Your task to perform on an android device: uninstall "Truecaller" Image 0: 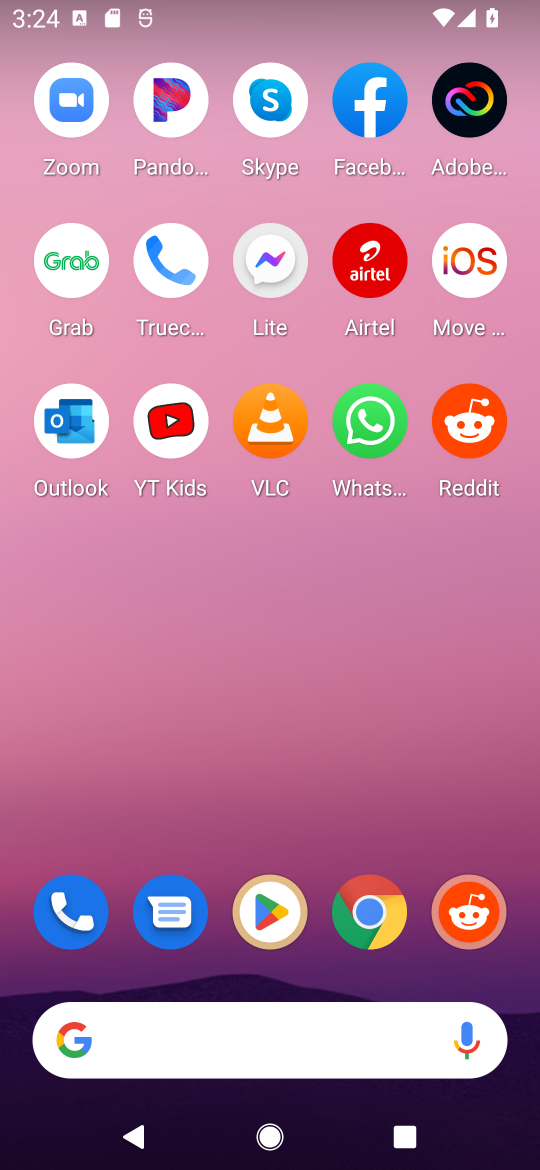
Step 0: drag from (207, 1059) to (248, 129)
Your task to perform on an android device: uninstall "Truecaller" Image 1: 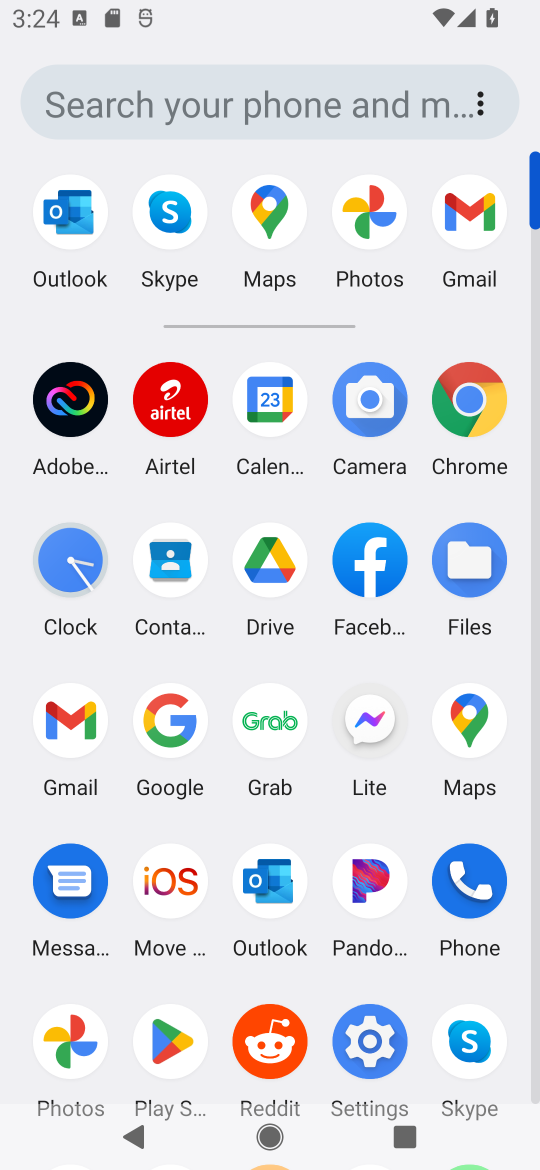
Step 1: click (167, 1044)
Your task to perform on an android device: uninstall "Truecaller" Image 2: 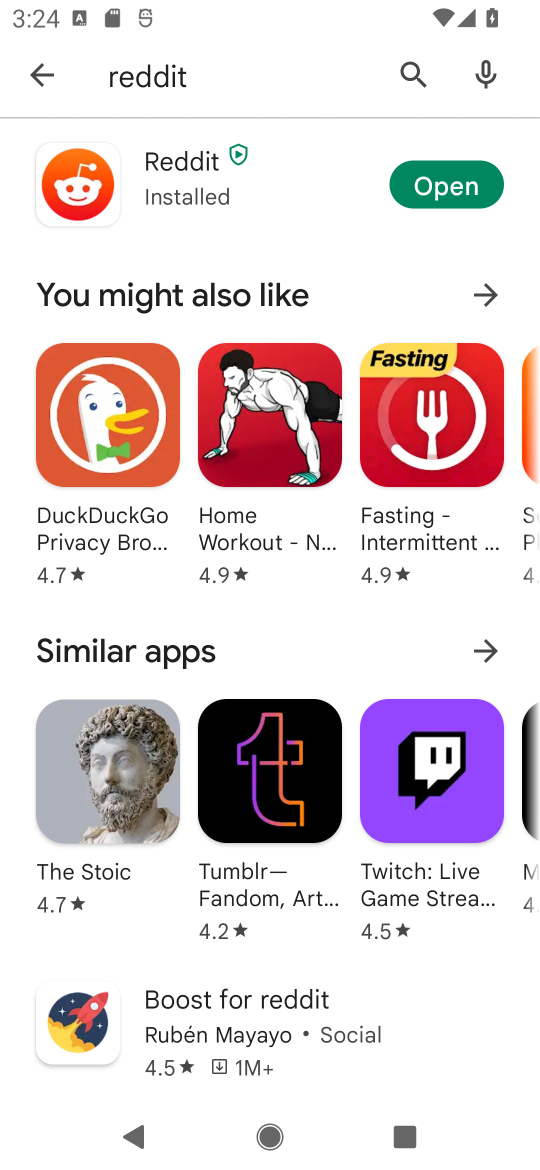
Step 2: click (318, 103)
Your task to perform on an android device: uninstall "Truecaller" Image 3: 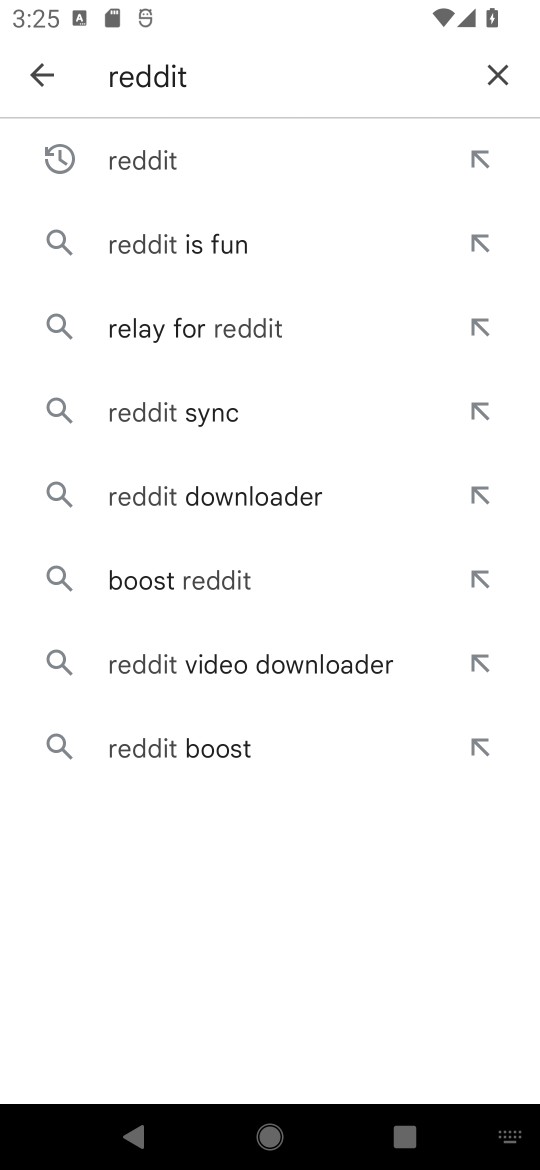
Step 3: press back button
Your task to perform on an android device: uninstall "Truecaller" Image 4: 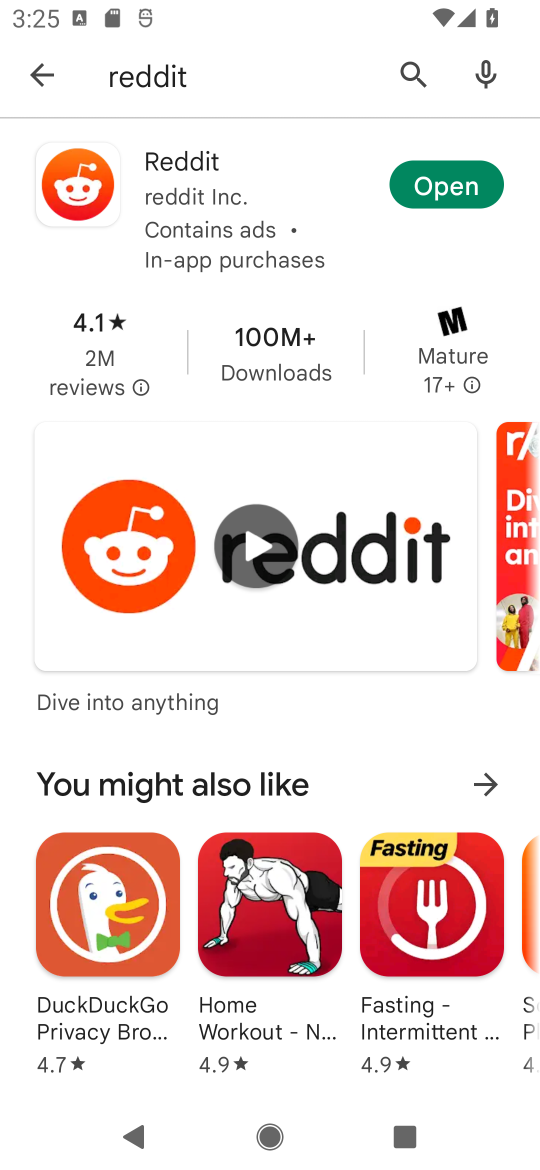
Step 4: press back button
Your task to perform on an android device: uninstall "Truecaller" Image 5: 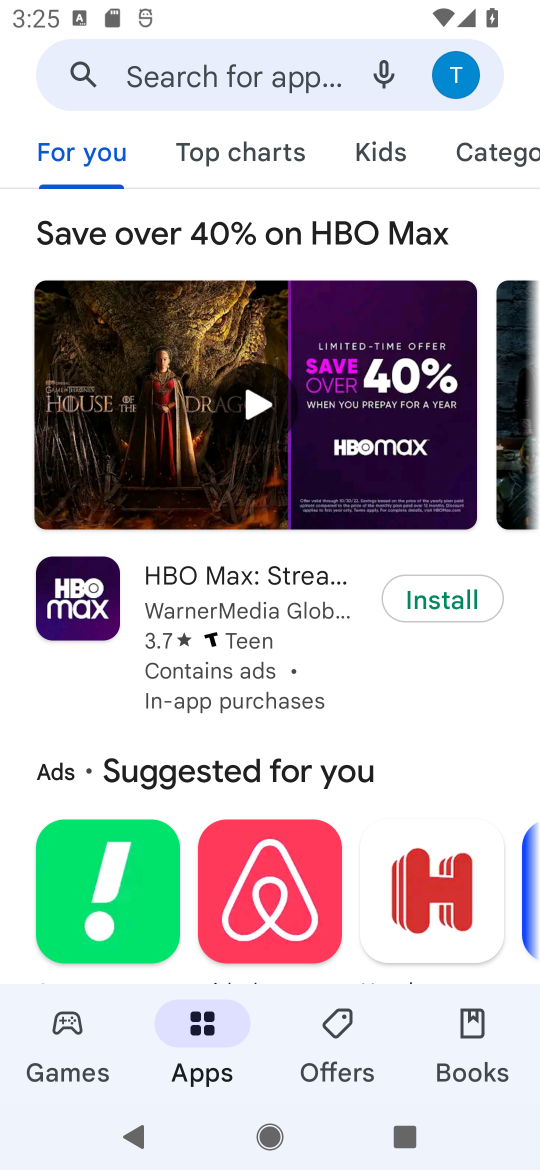
Step 5: click (220, 65)
Your task to perform on an android device: uninstall "Truecaller" Image 6: 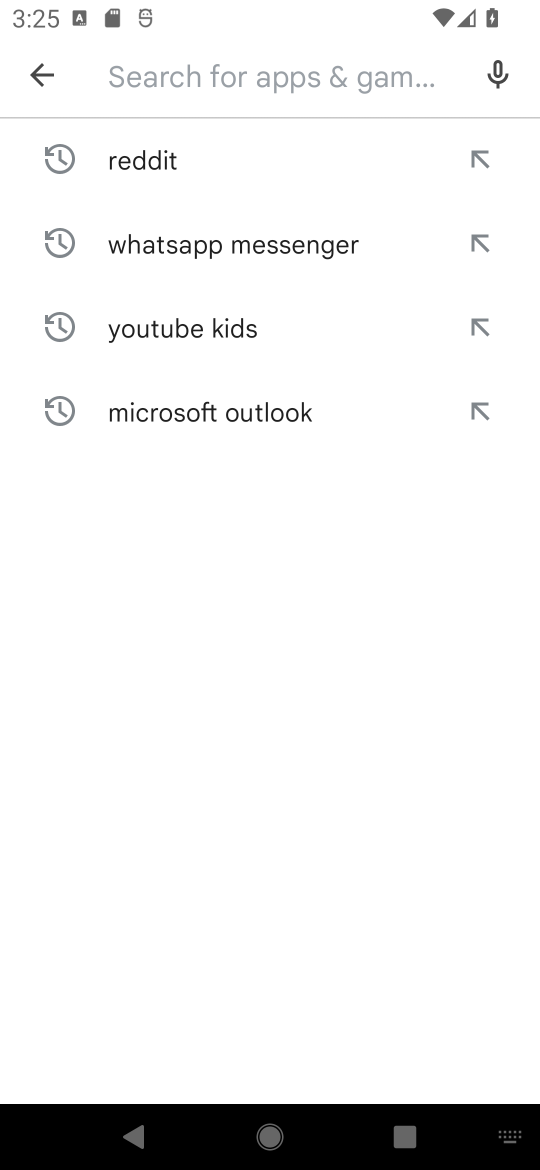
Step 6: type "Truecaller"
Your task to perform on an android device: uninstall "Truecaller" Image 7: 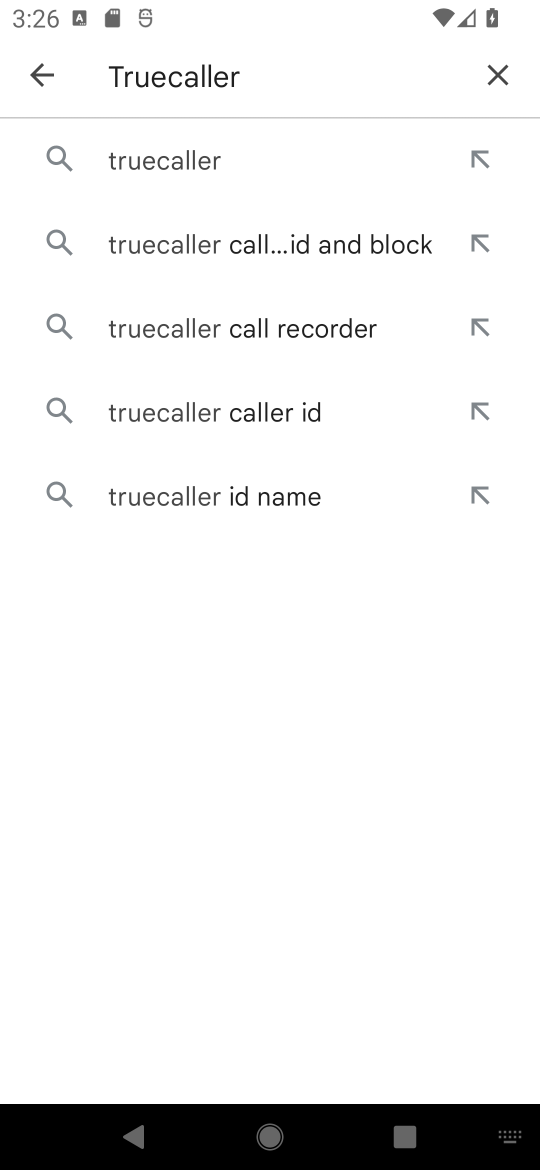
Step 7: click (191, 160)
Your task to perform on an android device: uninstall "Truecaller" Image 8: 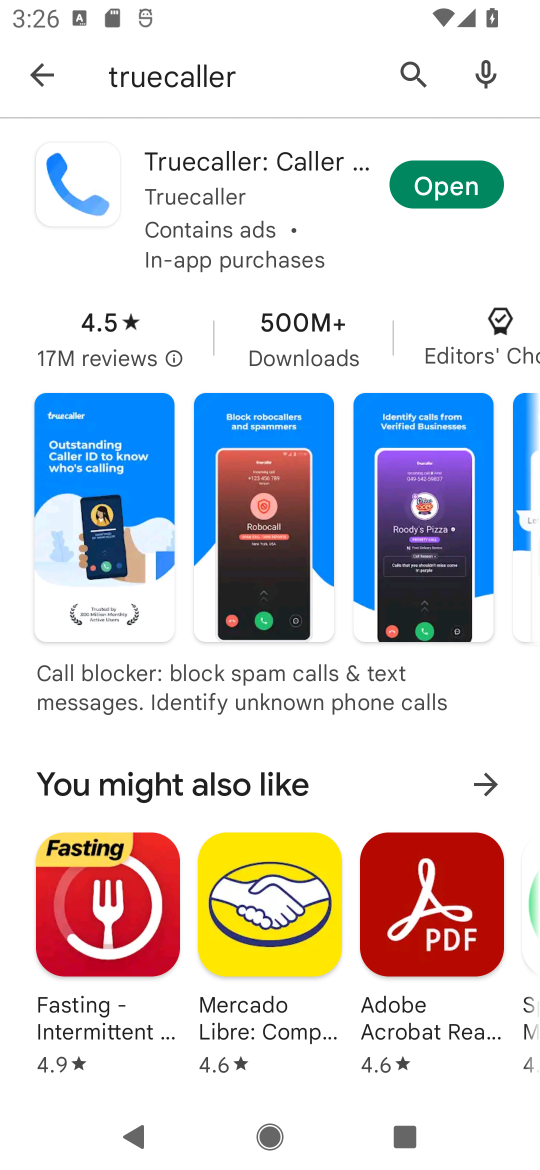
Step 8: click (257, 162)
Your task to perform on an android device: uninstall "Truecaller" Image 9: 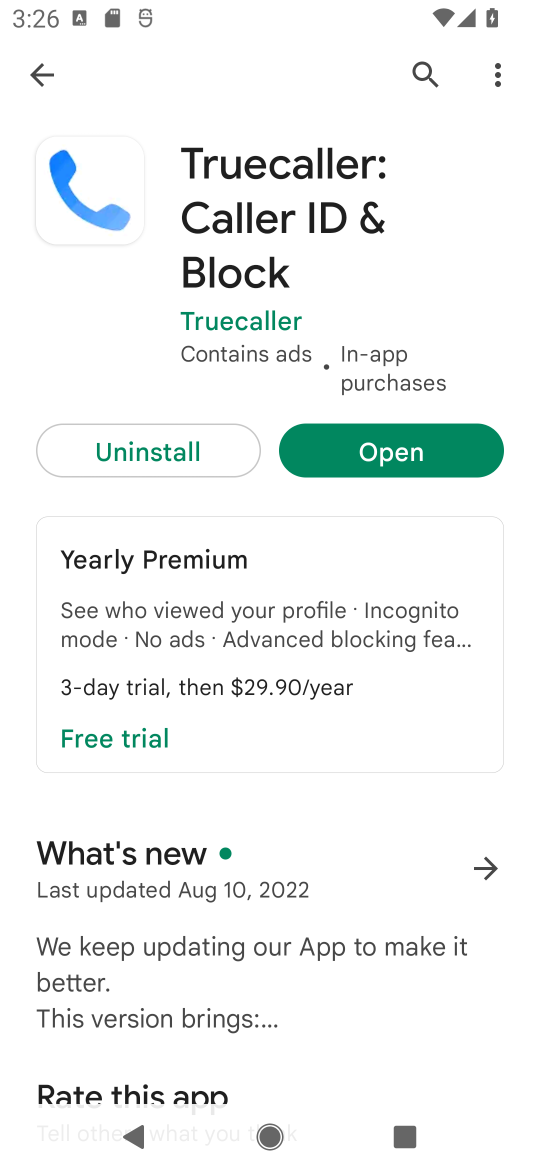
Step 9: click (167, 451)
Your task to perform on an android device: uninstall "Truecaller" Image 10: 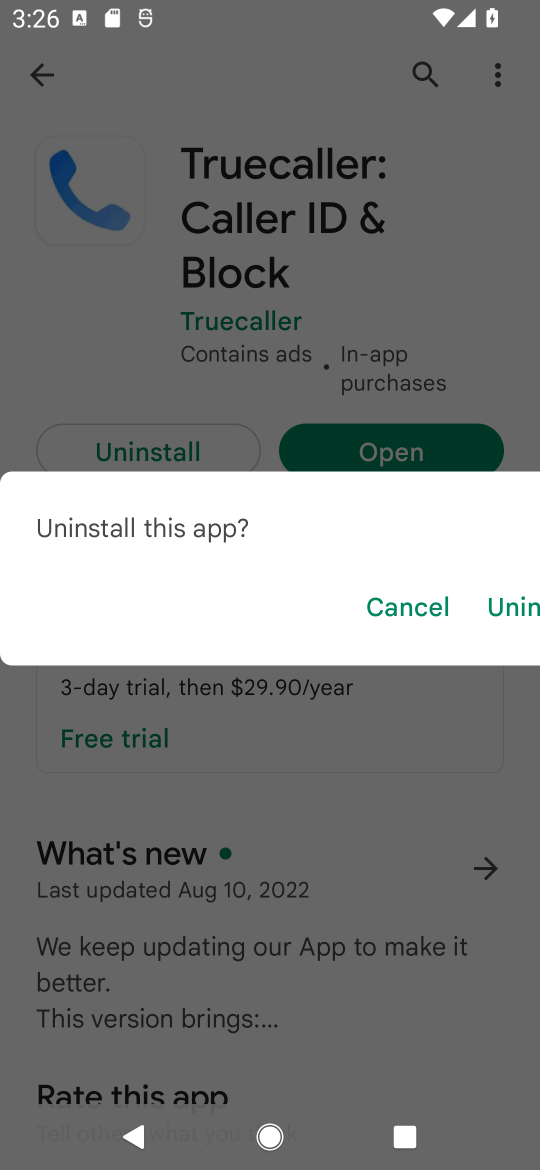
Step 10: click (507, 603)
Your task to perform on an android device: uninstall "Truecaller" Image 11: 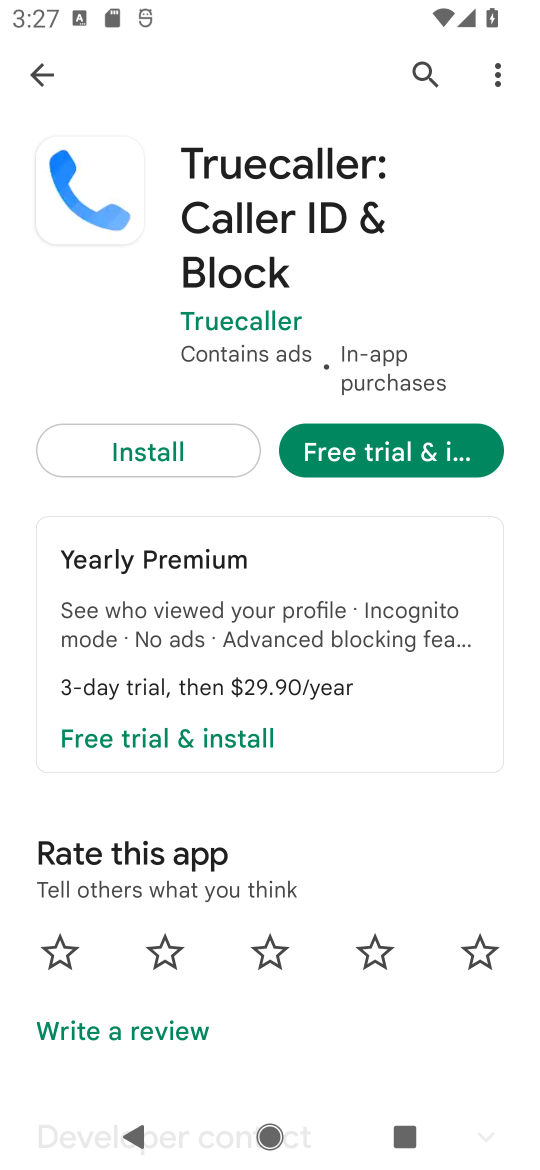
Step 11: task complete